Your task to perform on an android device: Open Chrome and go to settings Image 0: 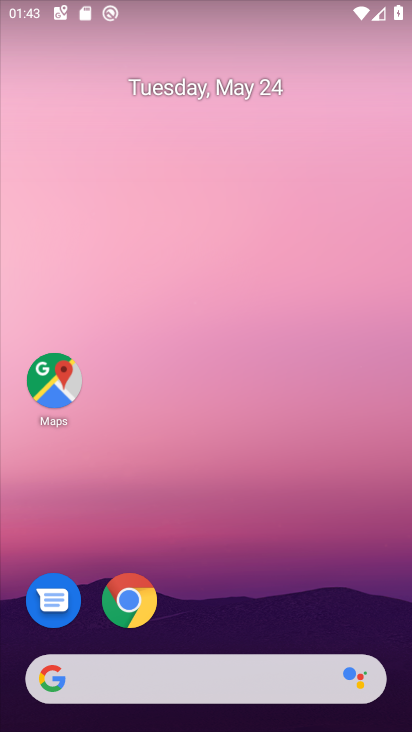
Step 0: click (160, 615)
Your task to perform on an android device: Open Chrome and go to settings Image 1: 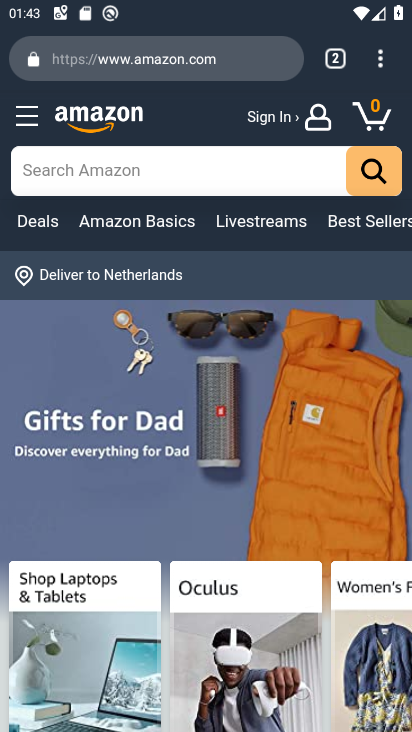
Step 1: click (382, 57)
Your task to perform on an android device: Open Chrome and go to settings Image 2: 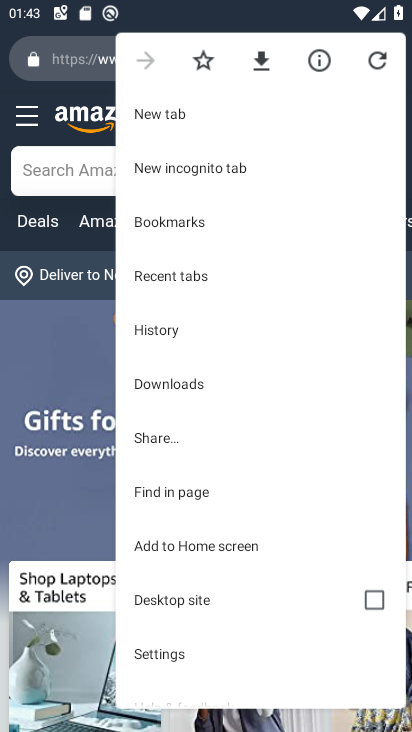
Step 2: click (209, 643)
Your task to perform on an android device: Open Chrome and go to settings Image 3: 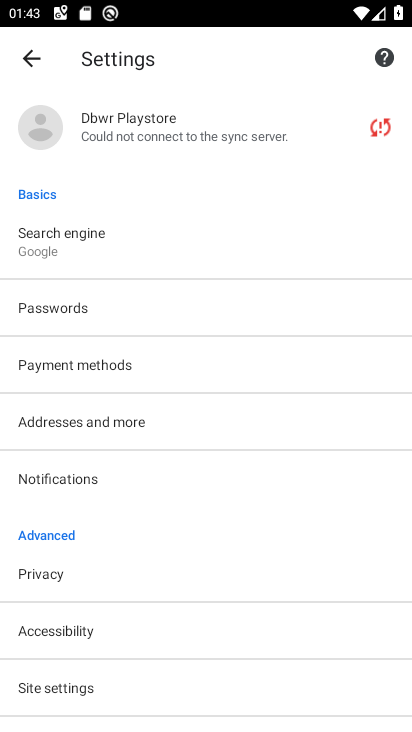
Step 3: task complete